Your task to perform on an android device: toggle translation in the chrome app Image 0: 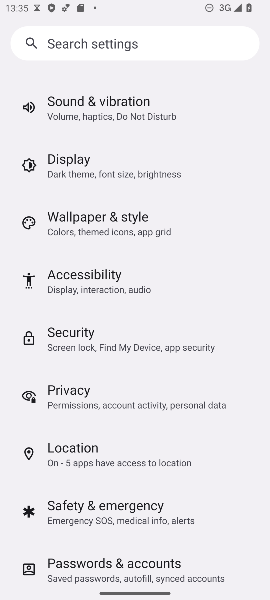
Step 0: press home button
Your task to perform on an android device: toggle translation in the chrome app Image 1: 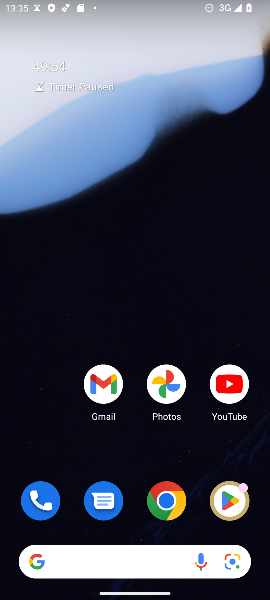
Step 1: click (169, 509)
Your task to perform on an android device: toggle translation in the chrome app Image 2: 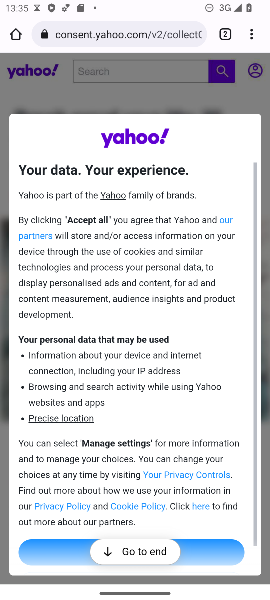
Step 2: click (250, 33)
Your task to perform on an android device: toggle translation in the chrome app Image 3: 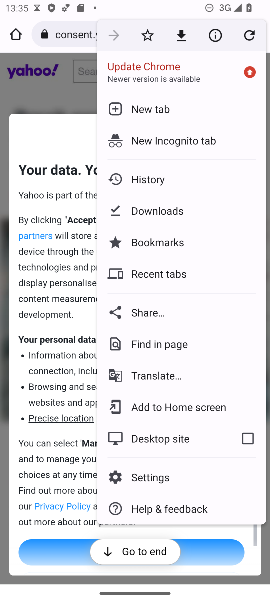
Step 3: click (161, 480)
Your task to perform on an android device: toggle translation in the chrome app Image 4: 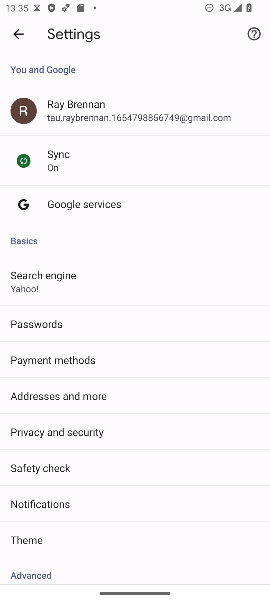
Step 4: drag from (54, 524) to (73, 282)
Your task to perform on an android device: toggle translation in the chrome app Image 5: 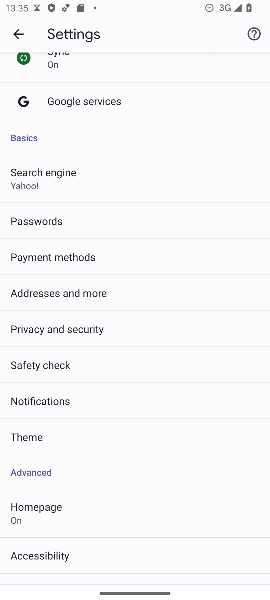
Step 5: drag from (83, 503) to (83, 244)
Your task to perform on an android device: toggle translation in the chrome app Image 6: 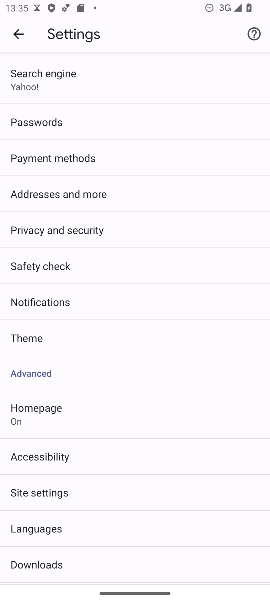
Step 6: click (50, 519)
Your task to perform on an android device: toggle translation in the chrome app Image 7: 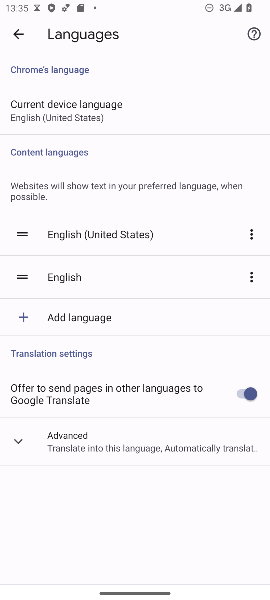
Step 7: click (240, 394)
Your task to perform on an android device: toggle translation in the chrome app Image 8: 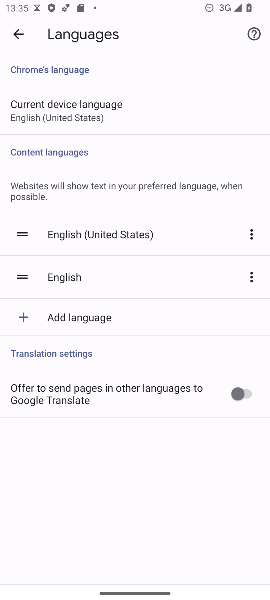
Step 8: task complete